Your task to perform on an android device: Open Chrome and go to settings Image 0: 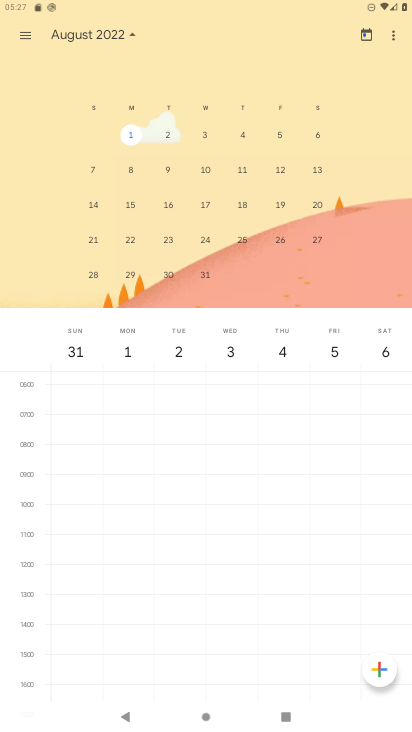
Step 0: press home button
Your task to perform on an android device: Open Chrome and go to settings Image 1: 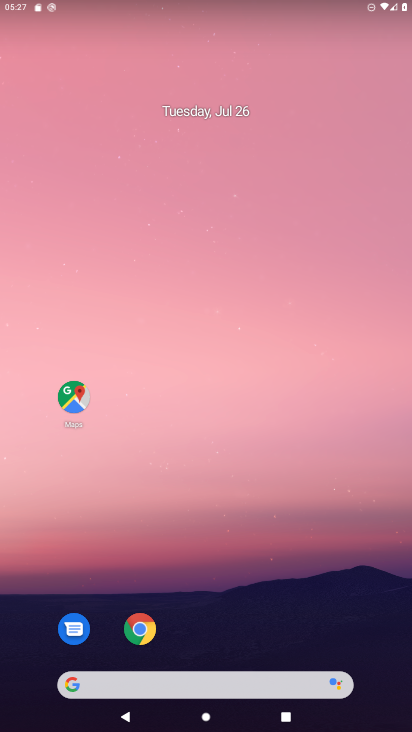
Step 1: drag from (200, 597) to (205, 102)
Your task to perform on an android device: Open Chrome and go to settings Image 2: 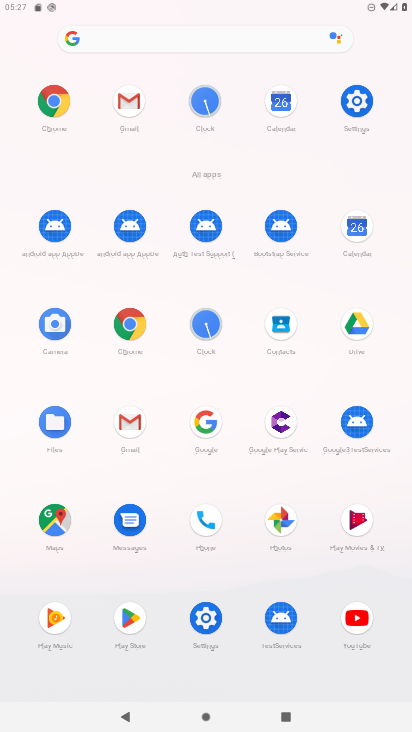
Step 2: click (136, 323)
Your task to perform on an android device: Open Chrome and go to settings Image 3: 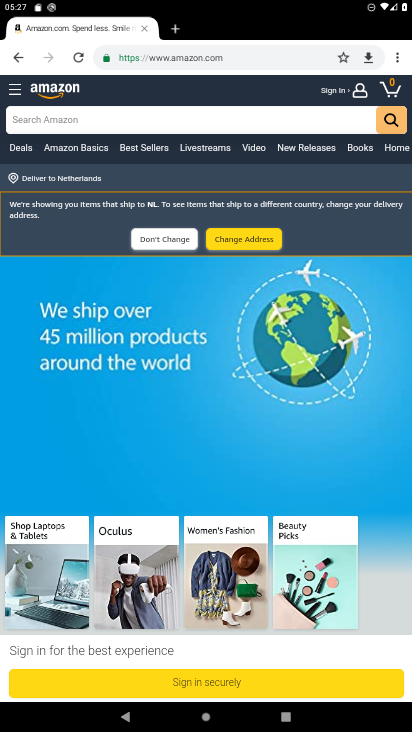
Step 3: click (398, 58)
Your task to perform on an android device: Open Chrome and go to settings Image 4: 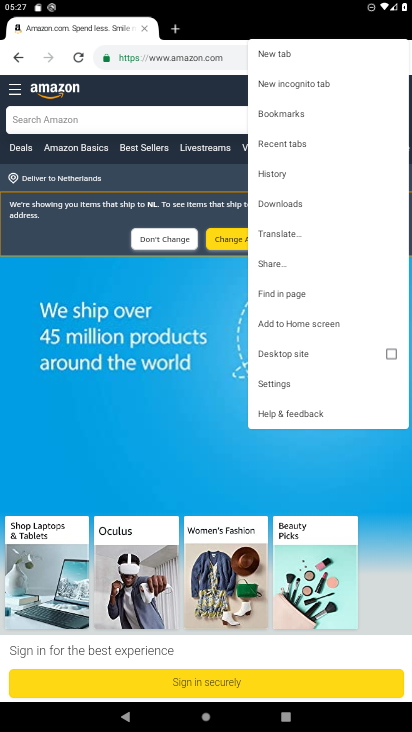
Step 4: click (287, 382)
Your task to perform on an android device: Open Chrome and go to settings Image 5: 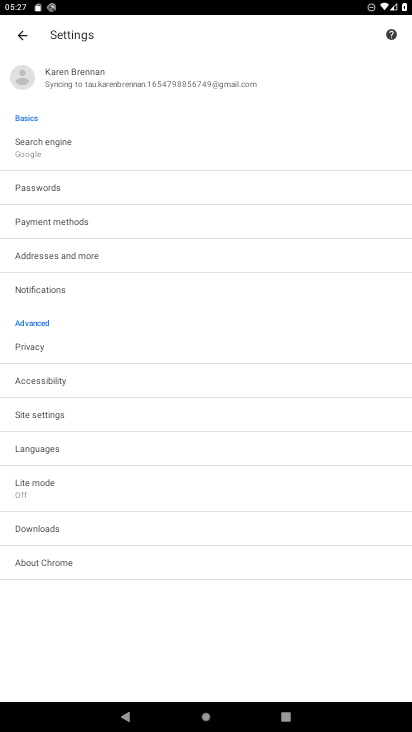
Step 5: task complete